Your task to perform on an android device: Check the weather Image 0: 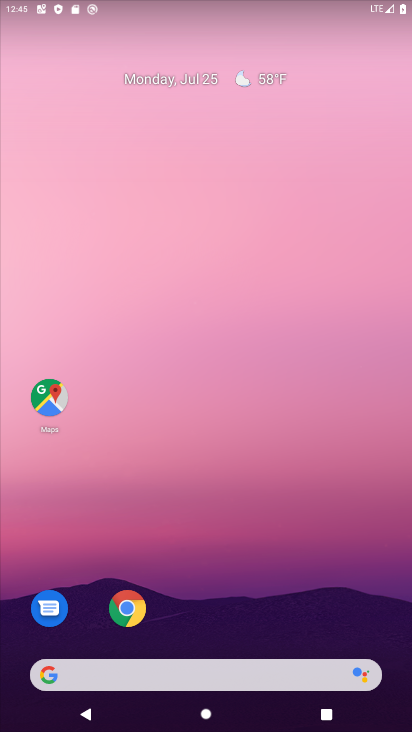
Step 0: drag from (202, 676) to (203, 108)
Your task to perform on an android device: Check the weather Image 1: 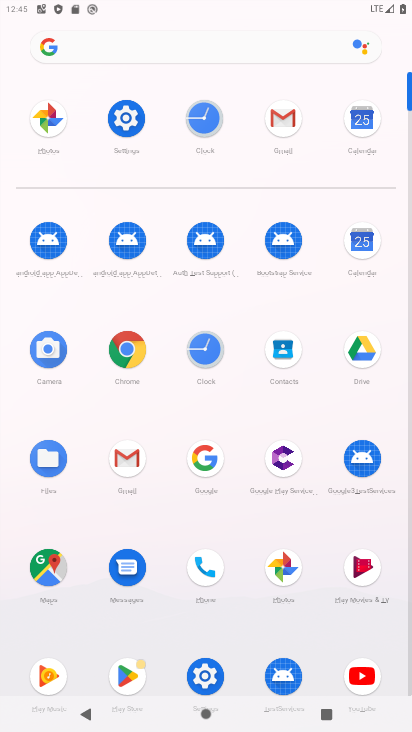
Step 1: click (207, 454)
Your task to perform on an android device: Check the weather Image 2: 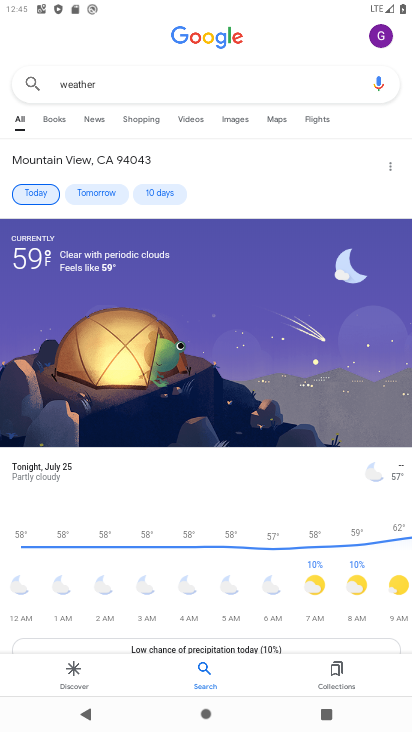
Step 2: task complete